Your task to perform on an android device: manage bookmarks in the chrome app Image 0: 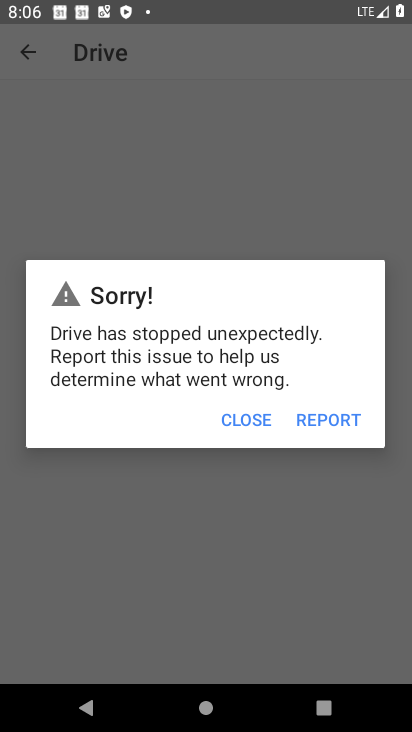
Step 0: press home button
Your task to perform on an android device: manage bookmarks in the chrome app Image 1: 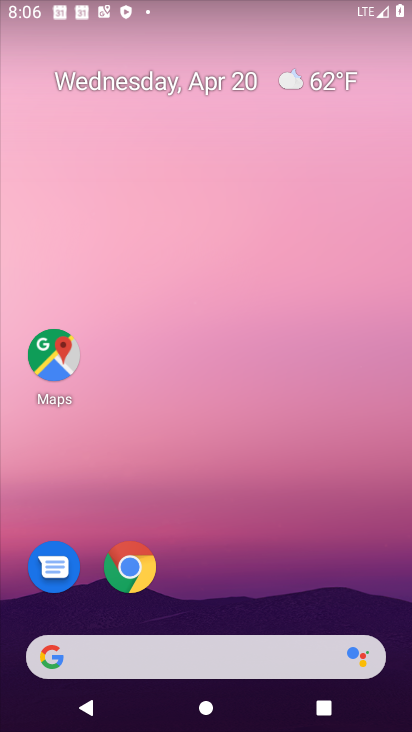
Step 1: drag from (265, 471) to (324, 60)
Your task to perform on an android device: manage bookmarks in the chrome app Image 2: 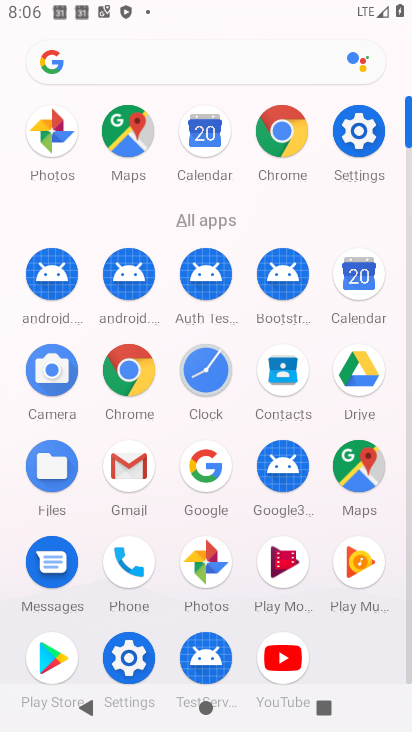
Step 2: click (297, 140)
Your task to perform on an android device: manage bookmarks in the chrome app Image 3: 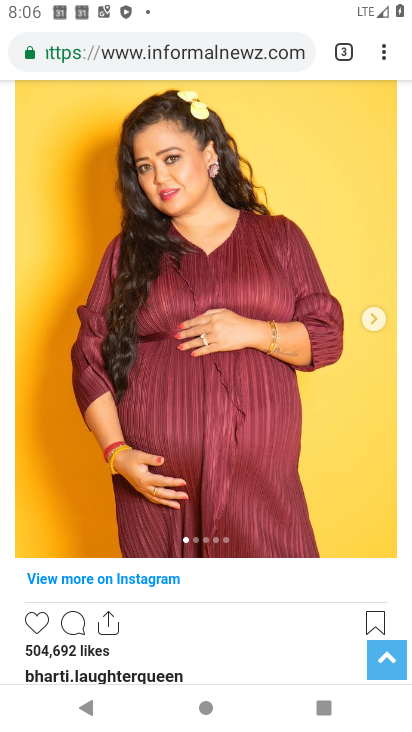
Step 3: drag from (387, 44) to (196, 203)
Your task to perform on an android device: manage bookmarks in the chrome app Image 4: 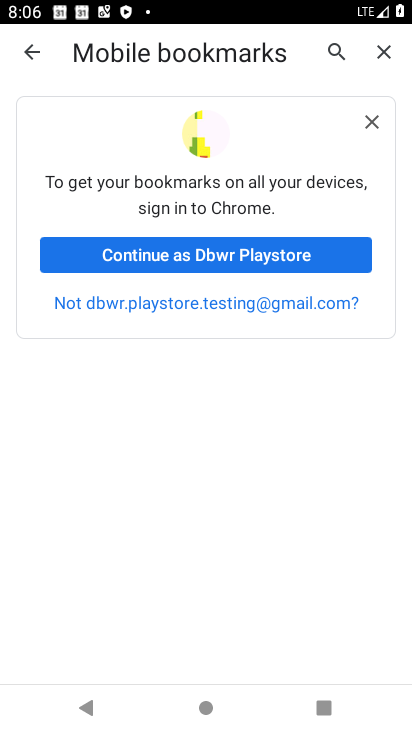
Step 4: click (193, 251)
Your task to perform on an android device: manage bookmarks in the chrome app Image 5: 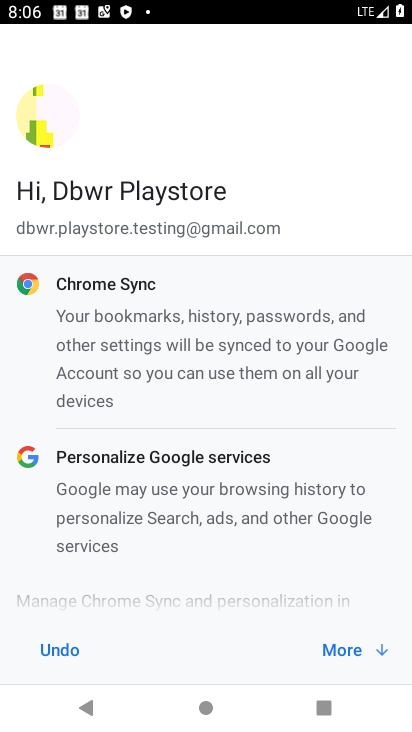
Step 5: click (316, 644)
Your task to perform on an android device: manage bookmarks in the chrome app Image 6: 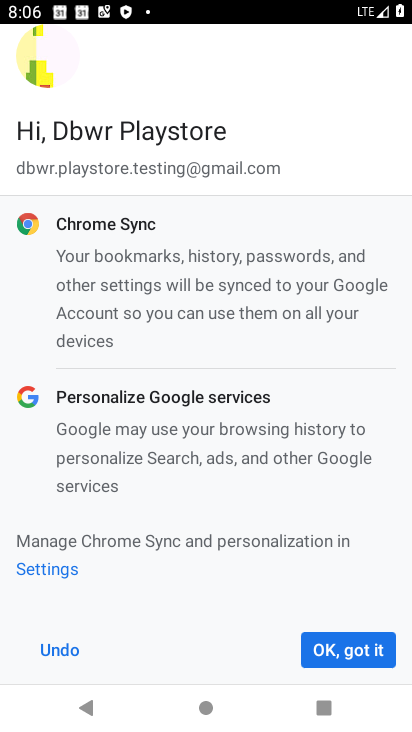
Step 6: click (342, 650)
Your task to perform on an android device: manage bookmarks in the chrome app Image 7: 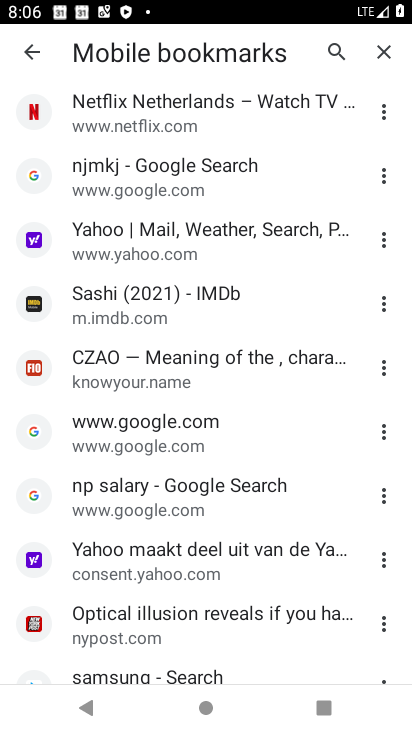
Step 7: click (390, 115)
Your task to perform on an android device: manage bookmarks in the chrome app Image 8: 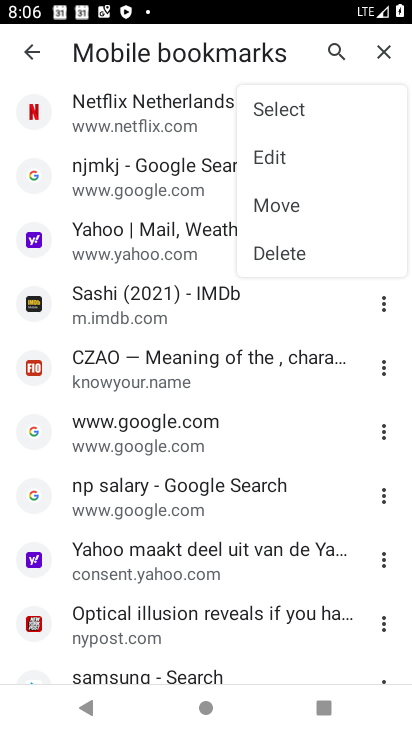
Step 8: click (298, 259)
Your task to perform on an android device: manage bookmarks in the chrome app Image 9: 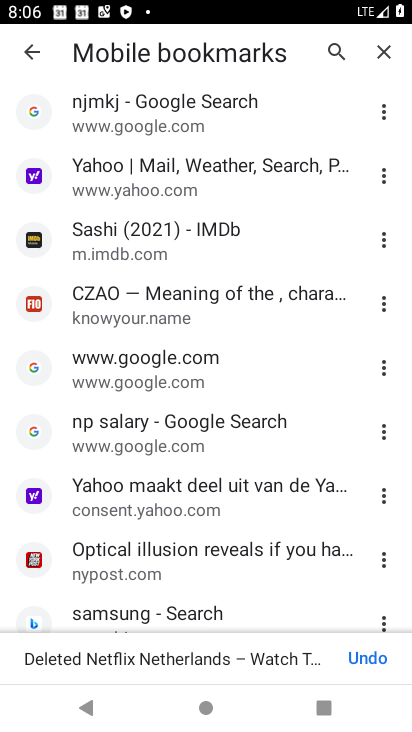
Step 9: task complete